Your task to perform on an android device: move a message to another label in the gmail app Image 0: 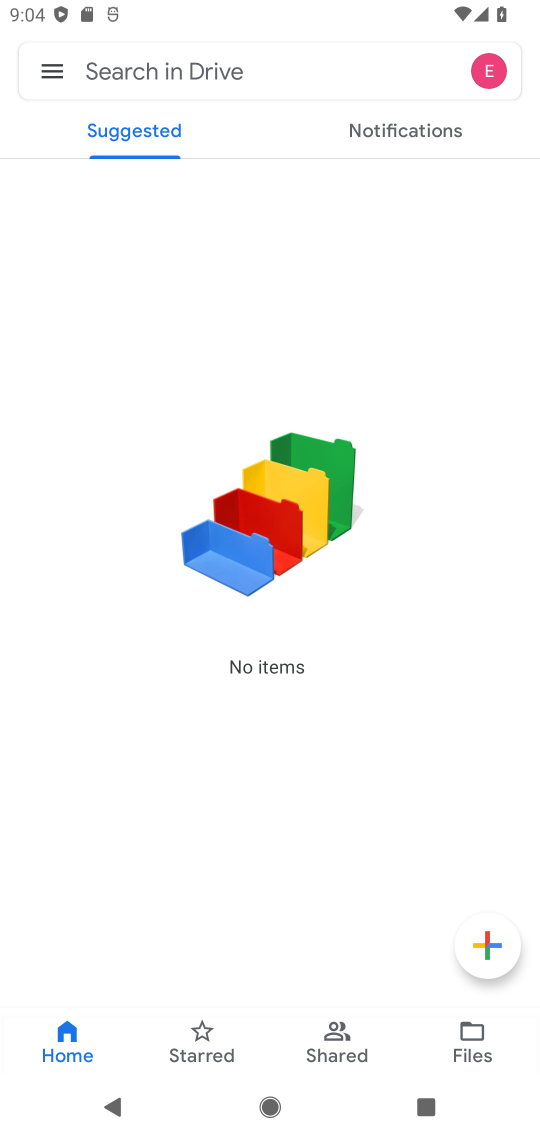
Step 0: press back button
Your task to perform on an android device: move a message to another label in the gmail app Image 1: 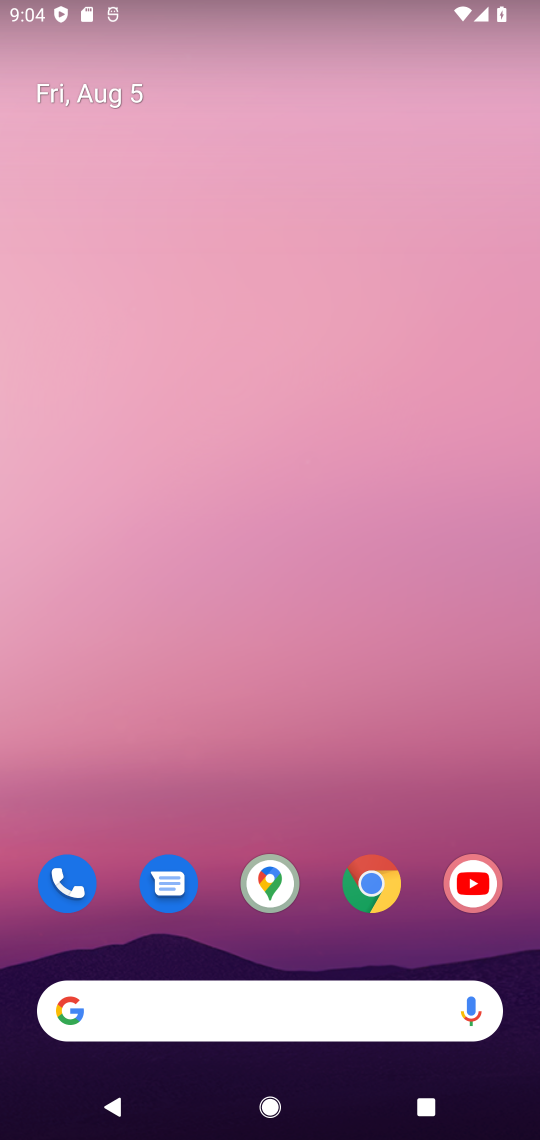
Step 1: drag from (177, 946) to (318, 77)
Your task to perform on an android device: move a message to another label in the gmail app Image 2: 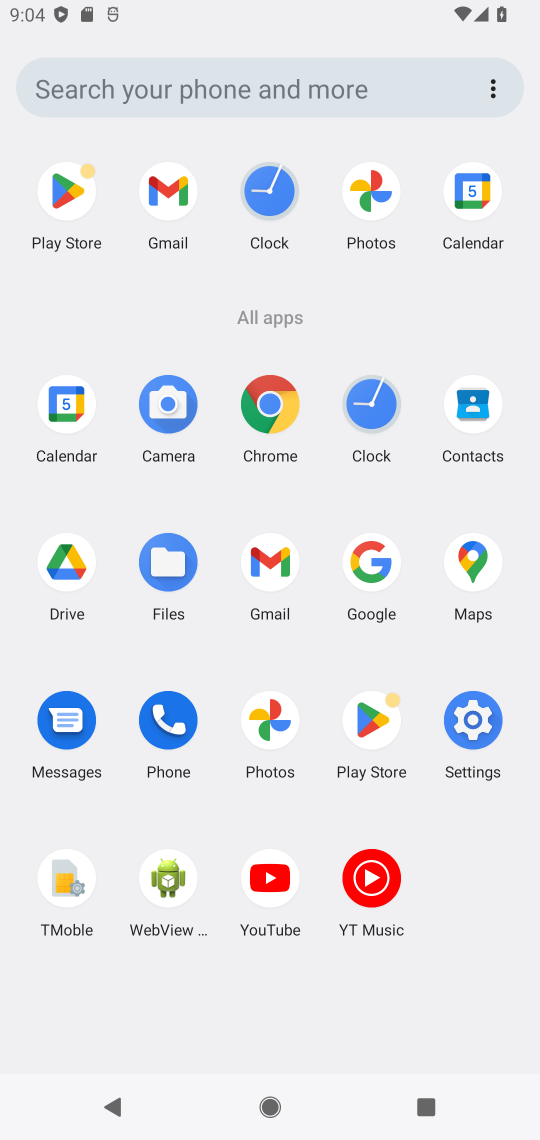
Step 2: click (147, 157)
Your task to perform on an android device: move a message to another label in the gmail app Image 3: 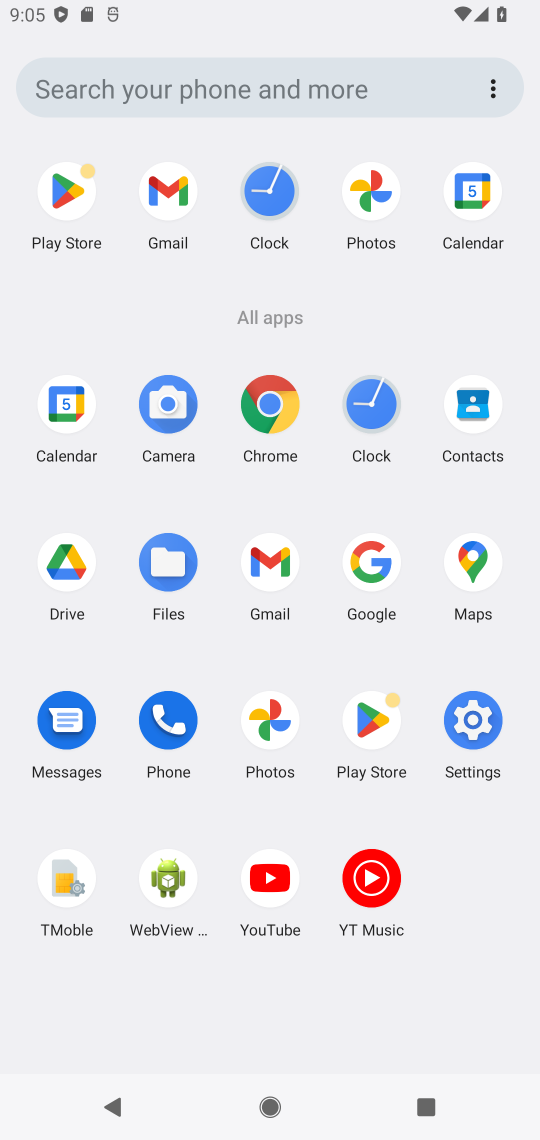
Step 3: click (172, 182)
Your task to perform on an android device: move a message to another label in the gmail app Image 4: 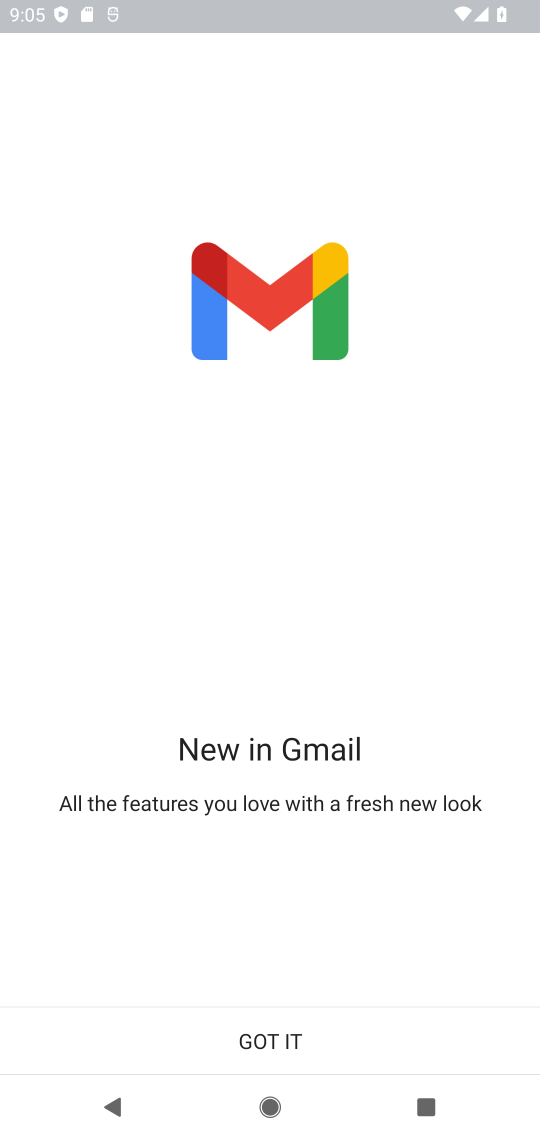
Step 4: click (275, 1048)
Your task to perform on an android device: move a message to another label in the gmail app Image 5: 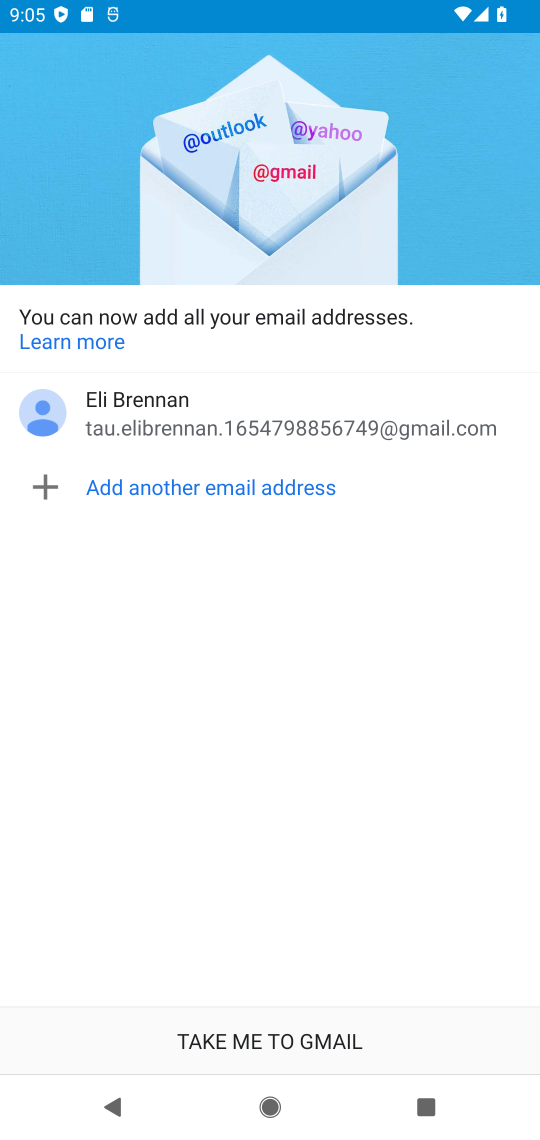
Step 5: click (261, 1043)
Your task to perform on an android device: move a message to another label in the gmail app Image 6: 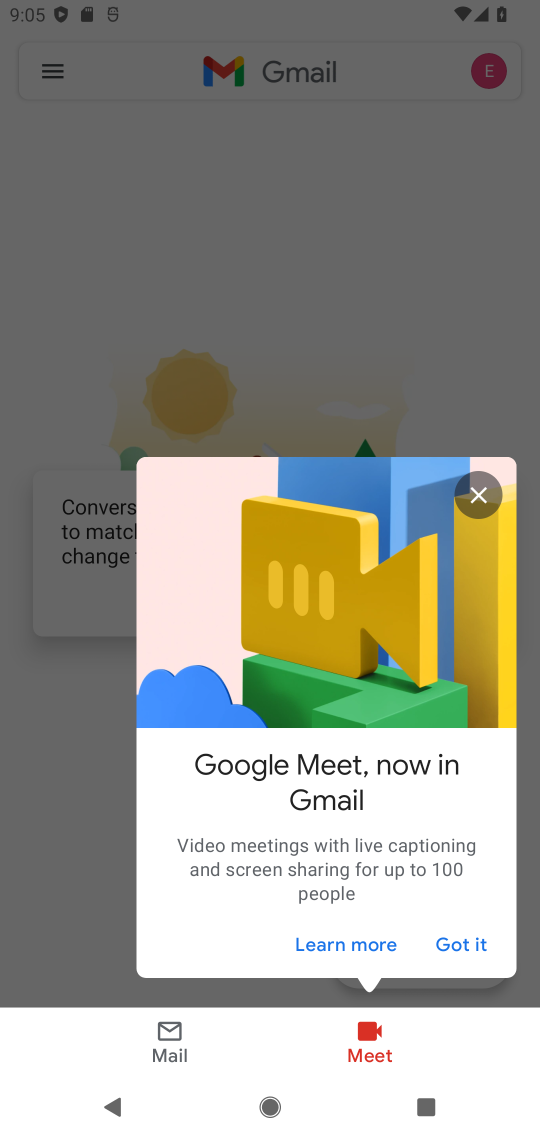
Step 6: click (446, 911)
Your task to perform on an android device: move a message to another label in the gmail app Image 7: 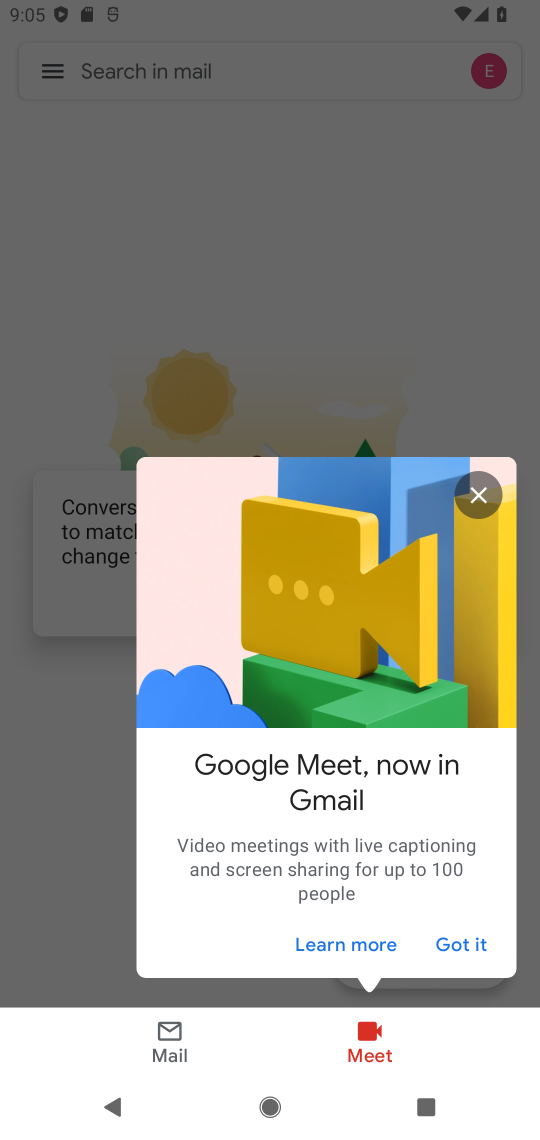
Step 7: click (471, 942)
Your task to perform on an android device: move a message to another label in the gmail app Image 8: 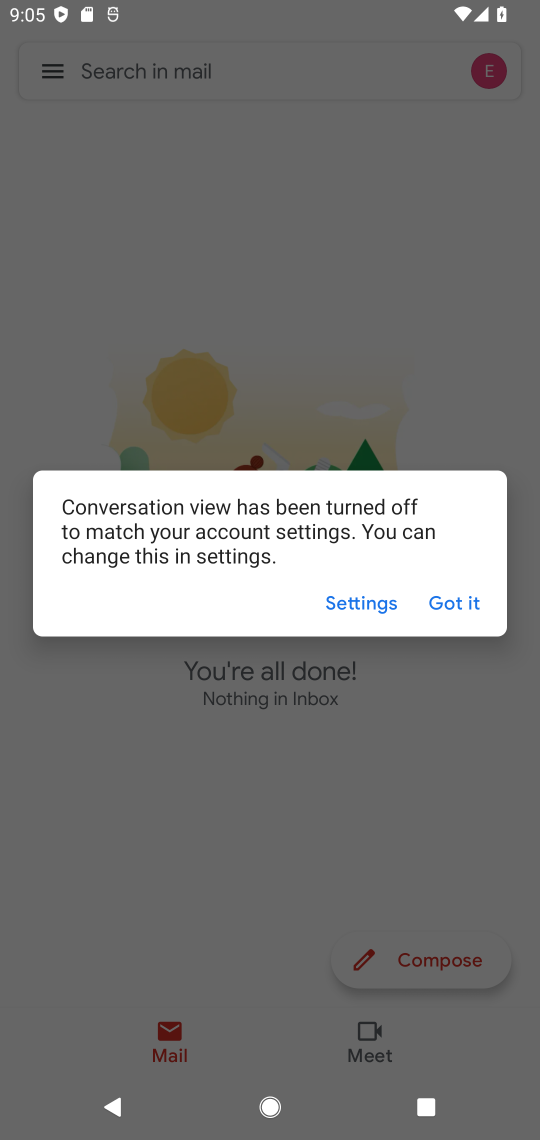
Step 8: click (470, 602)
Your task to perform on an android device: move a message to another label in the gmail app Image 9: 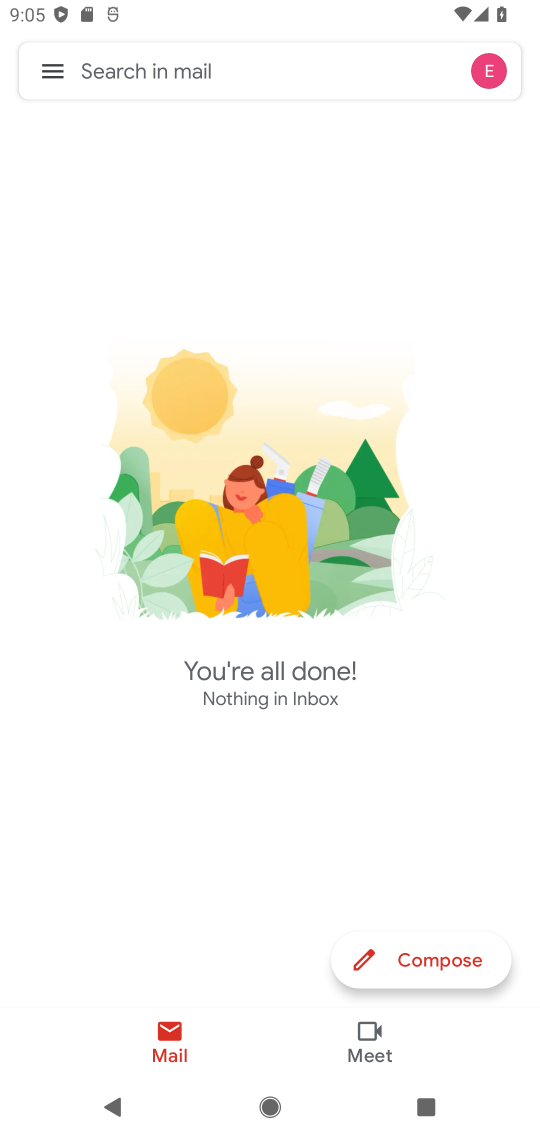
Step 9: click (50, 63)
Your task to perform on an android device: move a message to another label in the gmail app Image 10: 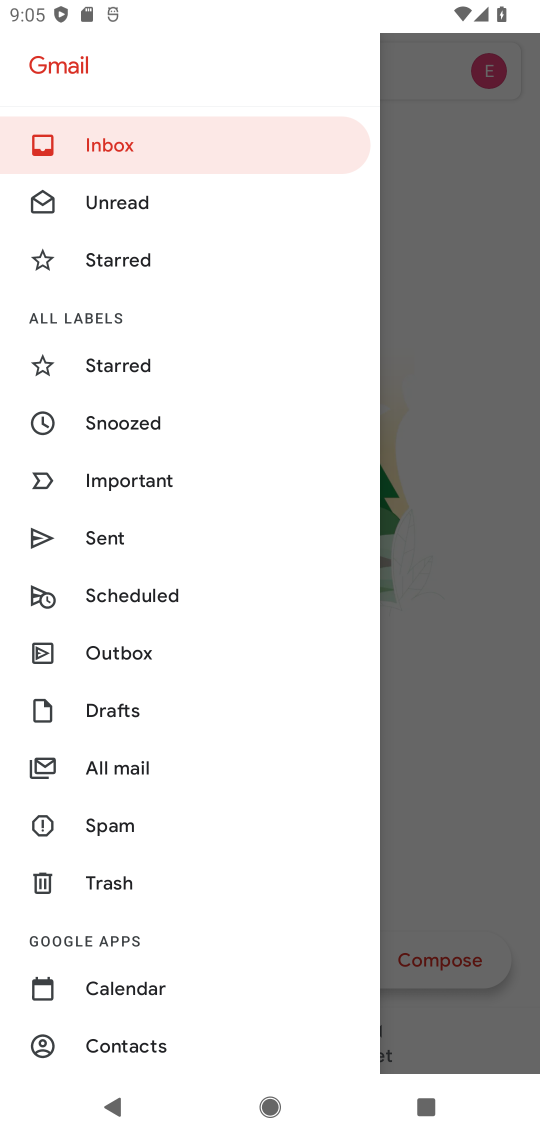
Step 10: click (120, 763)
Your task to perform on an android device: move a message to another label in the gmail app Image 11: 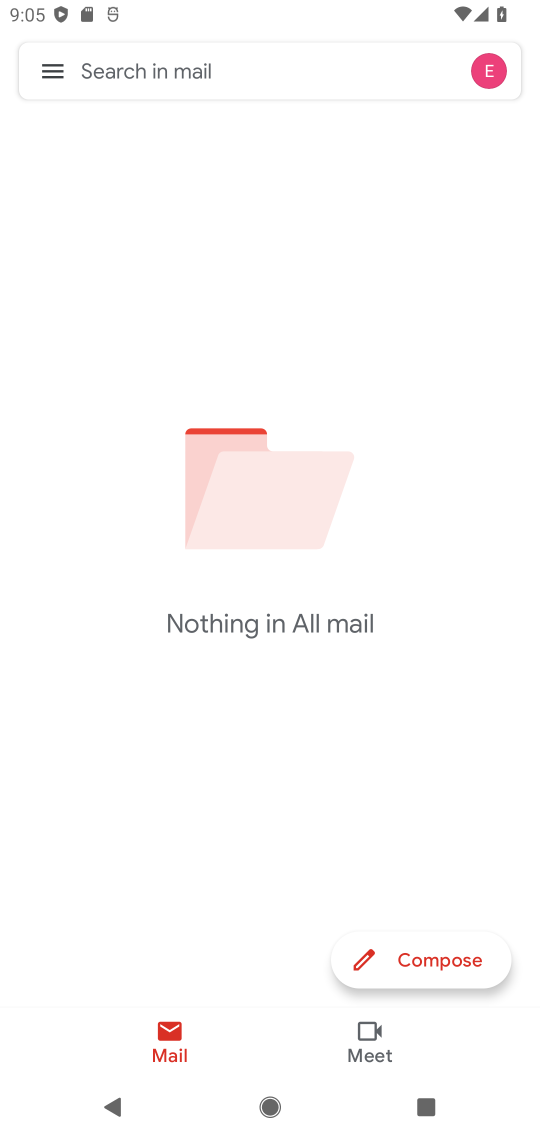
Step 11: task complete